Your task to perform on an android device: Open CNN.com Image 0: 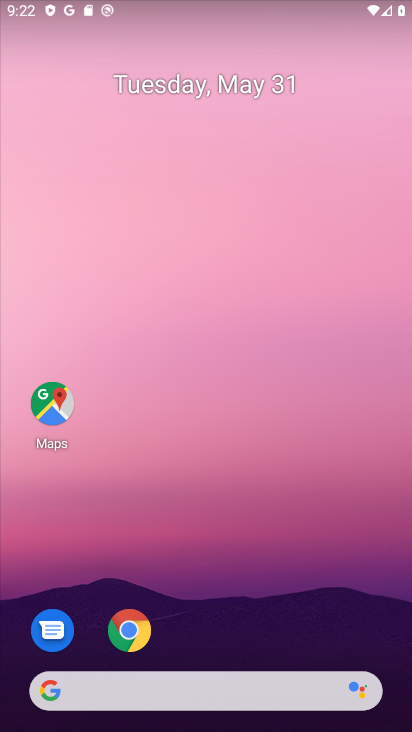
Step 0: click (129, 629)
Your task to perform on an android device: Open CNN.com Image 1: 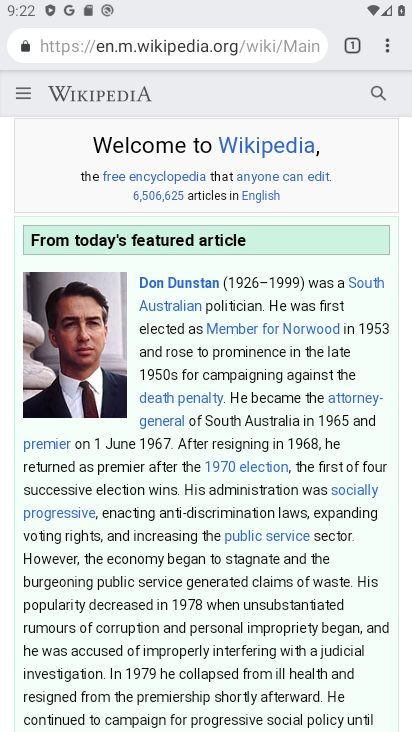
Step 1: click (348, 42)
Your task to perform on an android device: Open CNN.com Image 2: 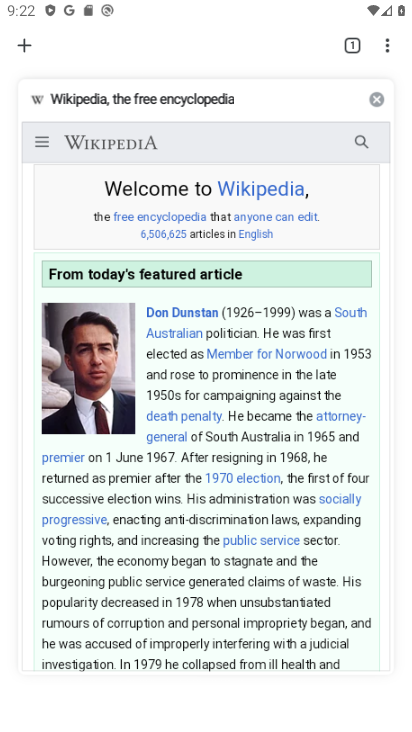
Step 2: click (373, 108)
Your task to perform on an android device: Open CNN.com Image 3: 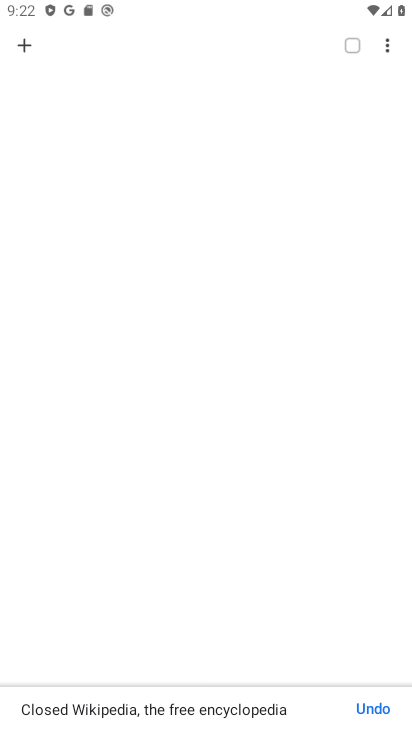
Step 3: click (25, 48)
Your task to perform on an android device: Open CNN.com Image 4: 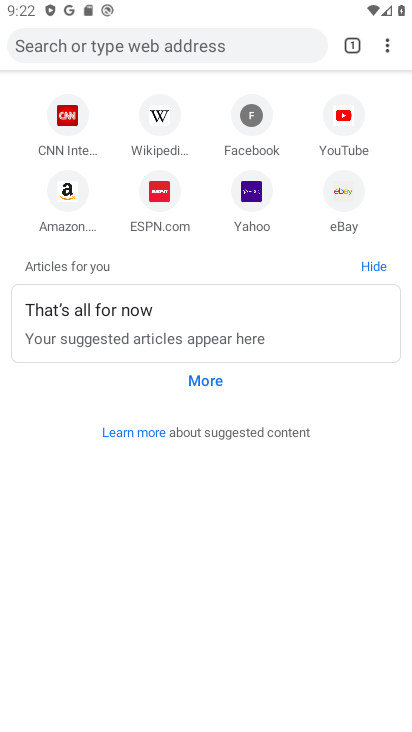
Step 4: click (64, 119)
Your task to perform on an android device: Open CNN.com Image 5: 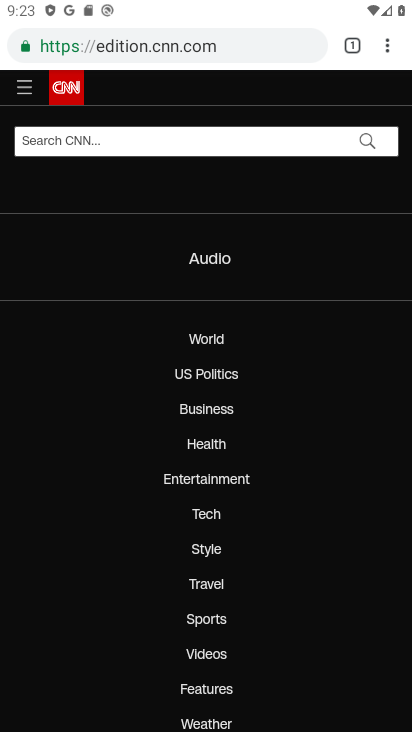
Step 5: task complete